Your task to perform on an android device: change the clock display to analog Image 0: 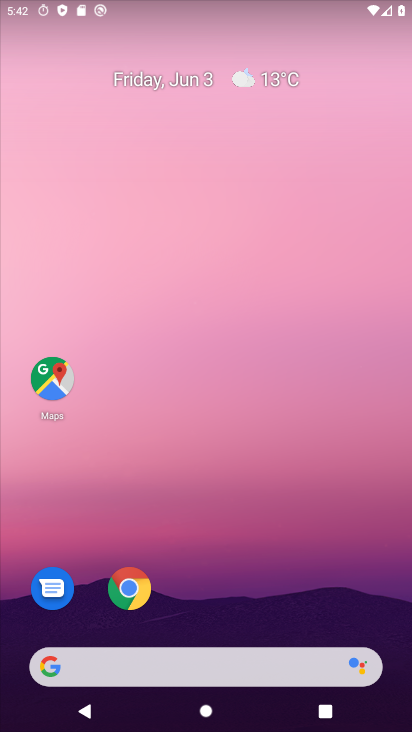
Step 0: drag from (247, 572) to (295, 125)
Your task to perform on an android device: change the clock display to analog Image 1: 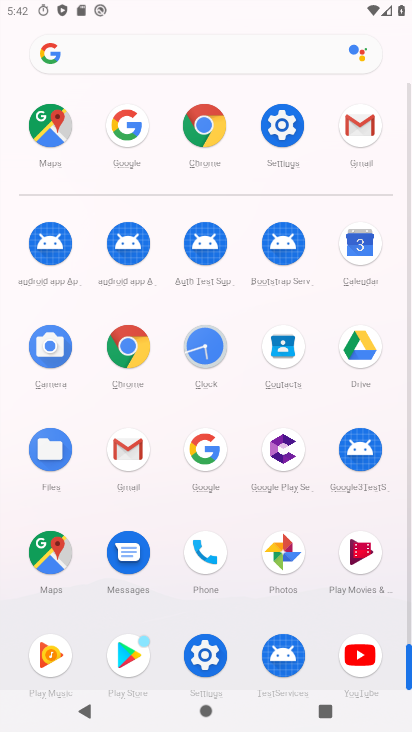
Step 1: click (215, 362)
Your task to perform on an android device: change the clock display to analog Image 2: 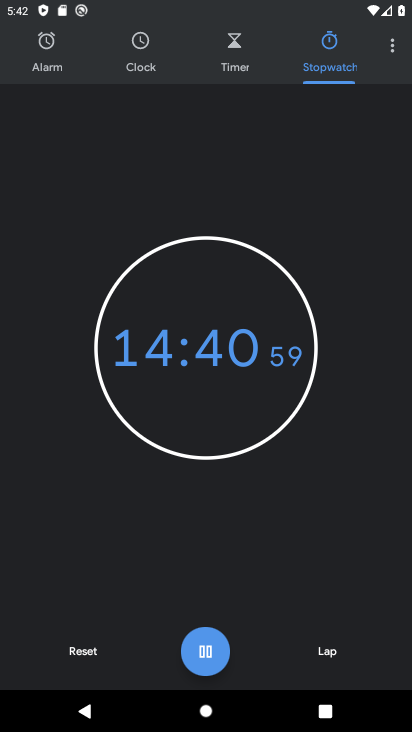
Step 2: click (388, 48)
Your task to perform on an android device: change the clock display to analog Image 3: 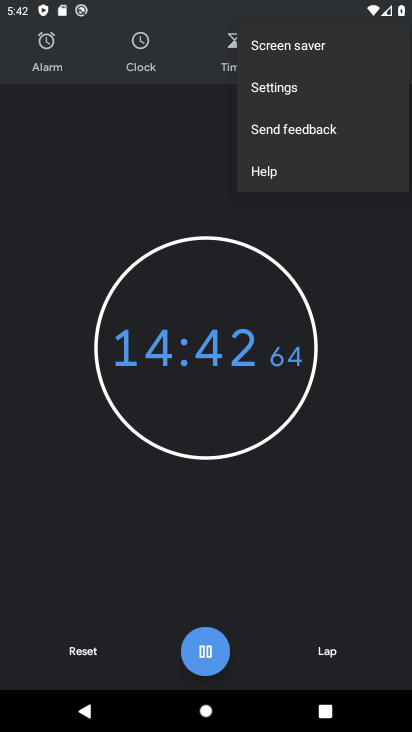
Step 3: click (305, 100)
Your task to perform on an android device: change the clock display to analog Image 4: 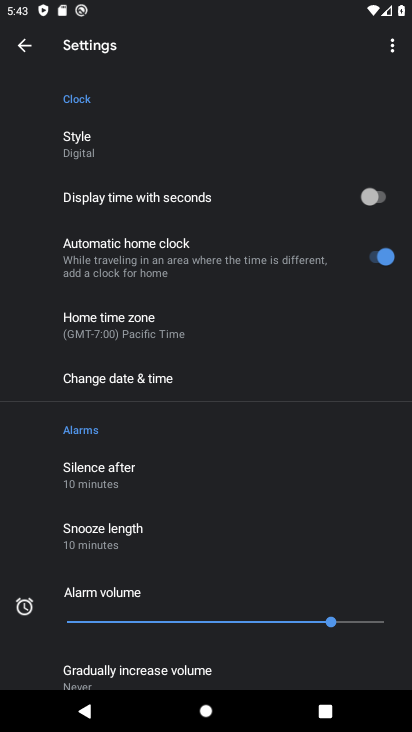
Step 4: click (169, 133)
Your task to perform on an android device: change the clock display to analog Image 5: 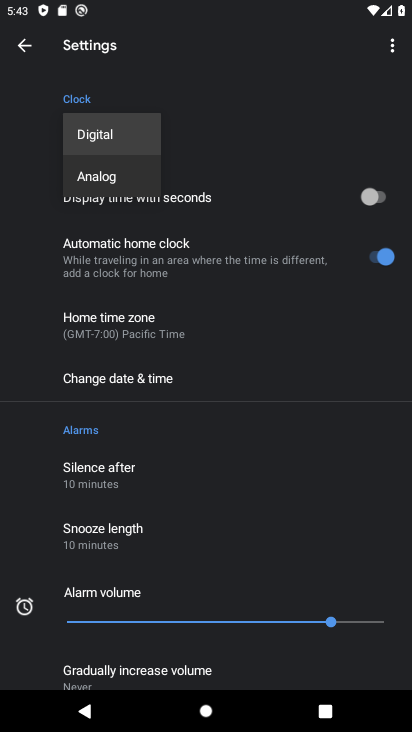
Step 5: click (129, 179)
Your task to perform on an android device: change the clock display to analog Image 6: 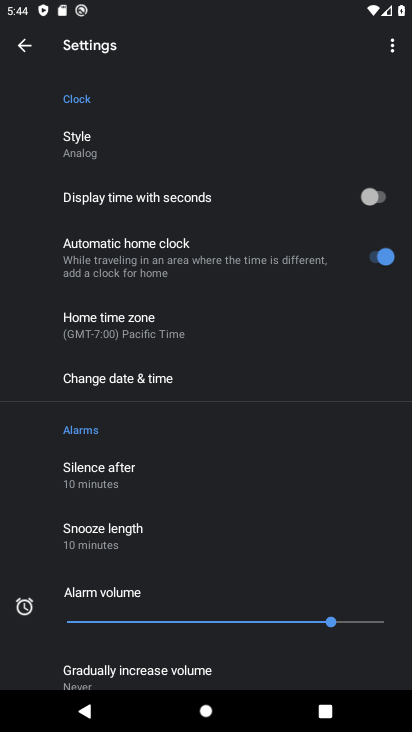
Step 6: task complete